Your task to perform on an android device: open chrome privacy settings Image 0: 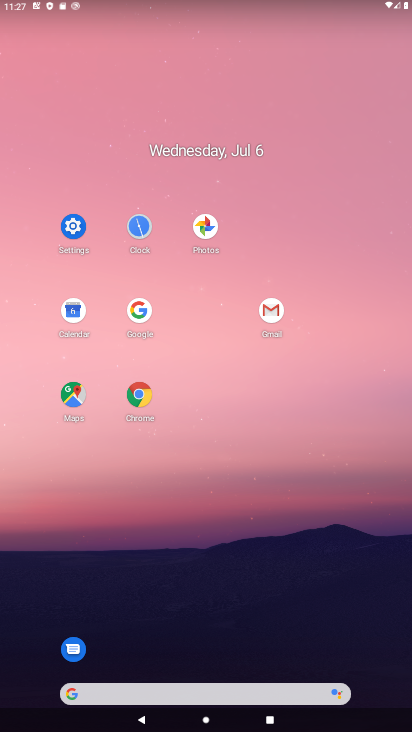
Step 0: click (140, 388)
Your task to perform on an android device: open chrome privacy settings Image 1: 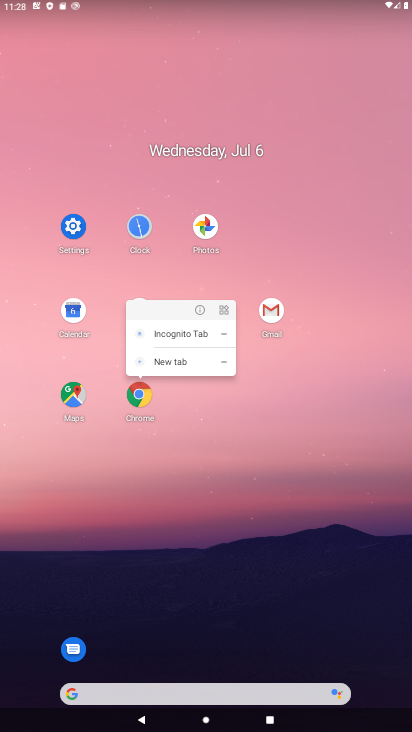
Step 1: click (138, 390)
Your task to perform on an android device: open chrome privacy settings Image 2: 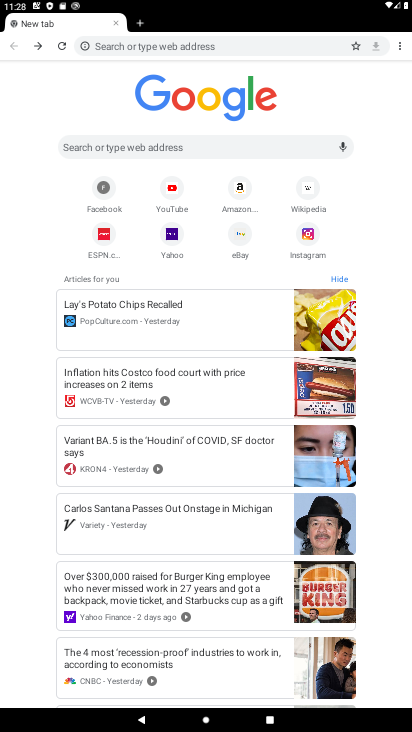
Step 2: click (395, 47)
Your task to perform on an android device: open chrome privacy settings Image 3: 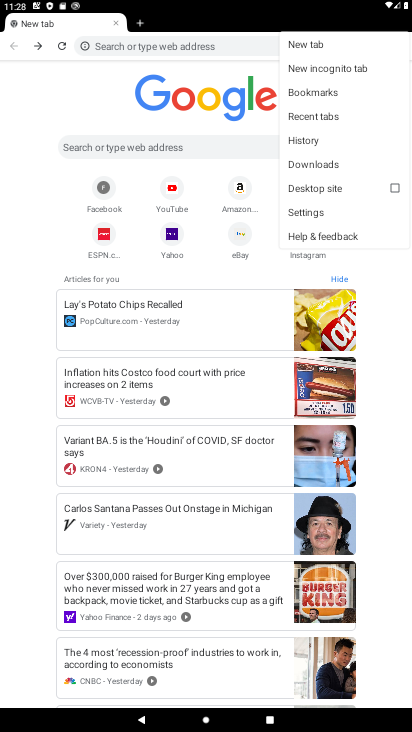
Step 3: click (309, 217)
Your task to perform on an android device: open chrome privacy settings Image 4: 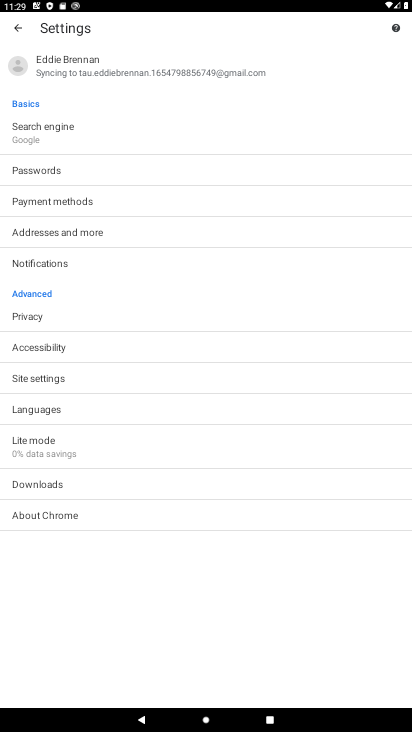
Step 4: click (64, 319)
Your task to perform on an android device: open chrome privacy settings Image 5: 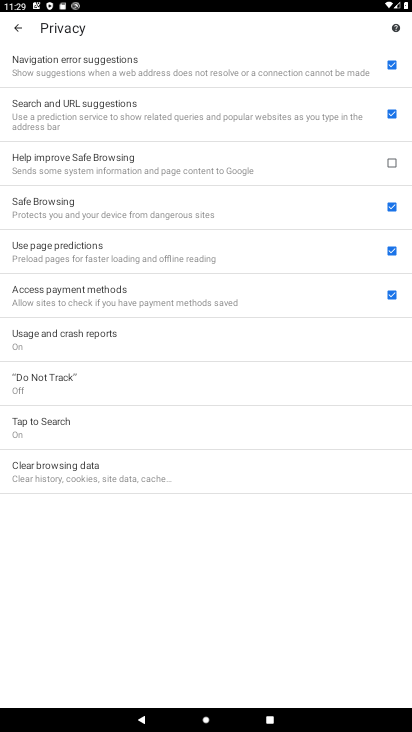
Step 5: task complete